Your task to perform on an android device: Open Maps and search for coffee Image 0: 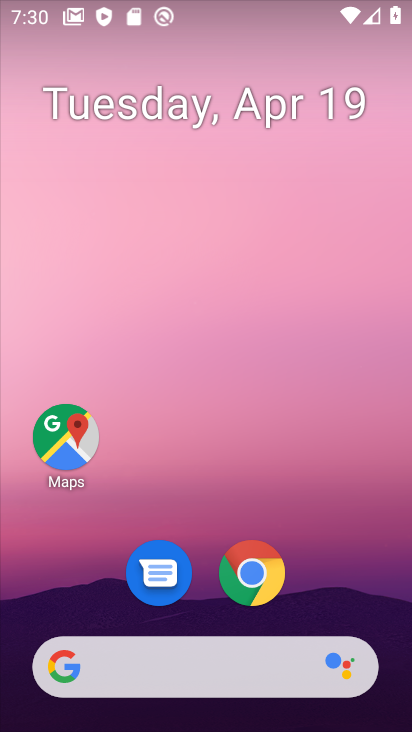
Step 0: click (50, 437)
Your task to perform on an android device: Open Maps and search for coffee Image 1: 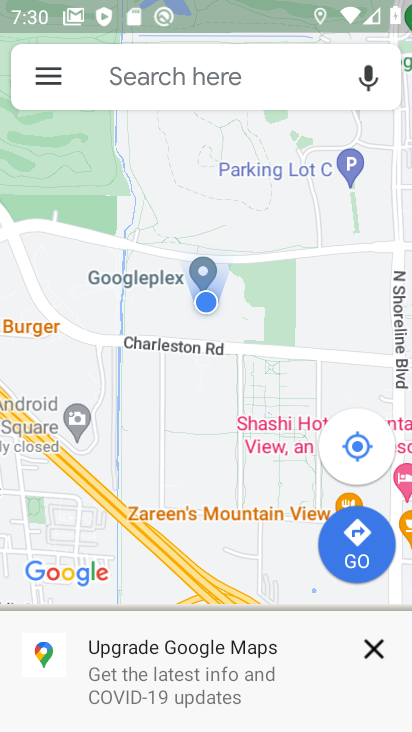
Step 1: click (108, 85)
Your task to perform on an android device: Open Maps and search for coffee Image 2: 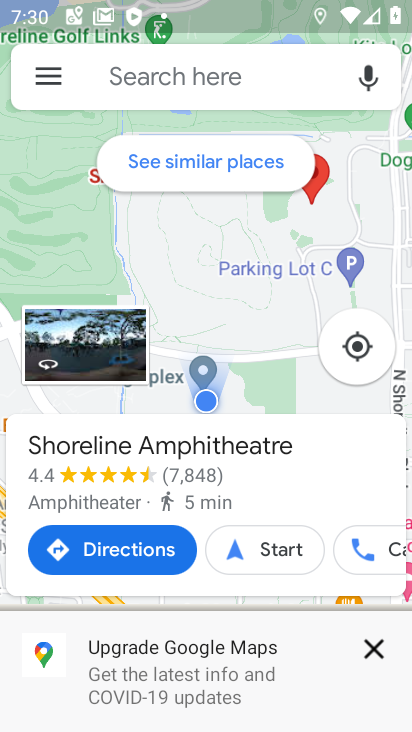
Step 2: click (100, 72)
Your task to perform on an android device: Open Maps and search for coffee Image 3: 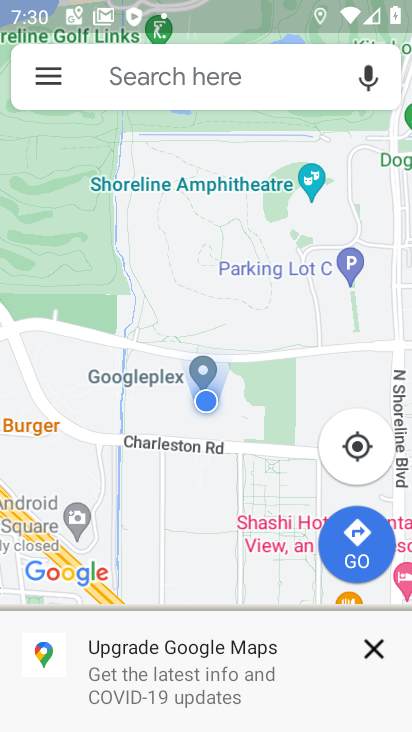
Step 3: click (100, 72)
Your task to perform on an android device: Open Maps and search for coffee Image 4: 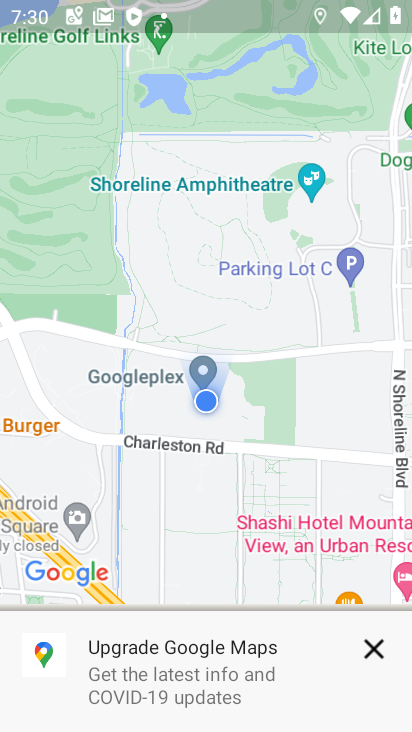
Step 4: type "coffee"
Your task to perform on an android device: Open Maps and search for coffee Image 5: 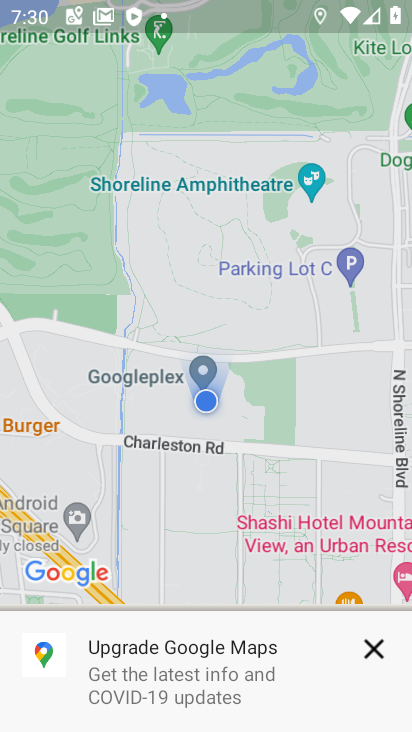
Step 5: press back button
Your task to perform on an android device: Open Maps and search for coffee Image 6: 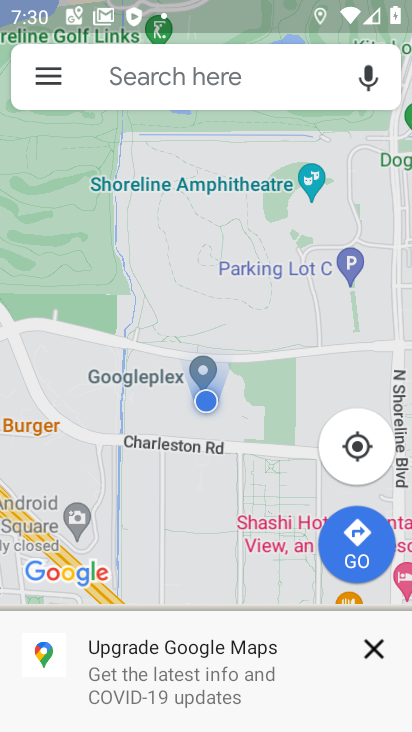
Step 6: click (127, 66)
Your task to perform on an android device: Open Maps and search for coffee Image 7: 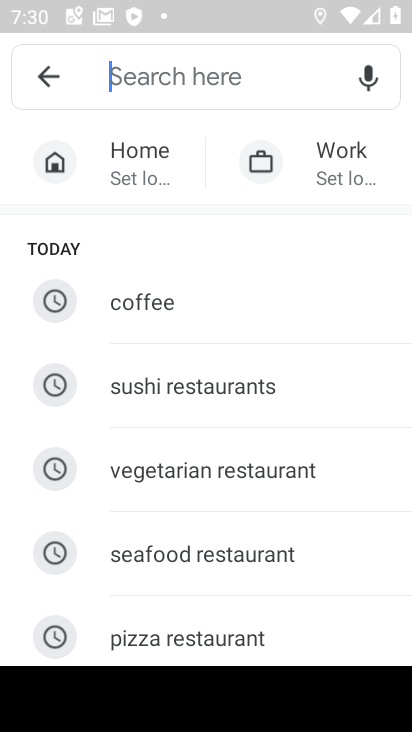
Step 7: type "coffee"
Your task to perform on an android device: Open Maps and search for coffee Image 8: 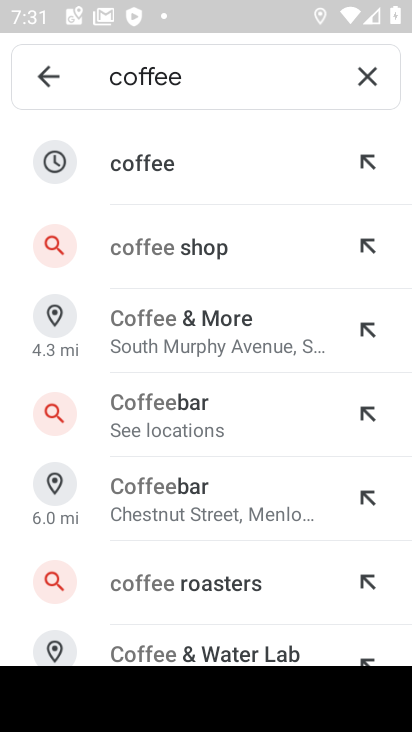
Step 8: click (145, 162)
Your task to perform on an android device: Open Maps and search for coffee Image 9: 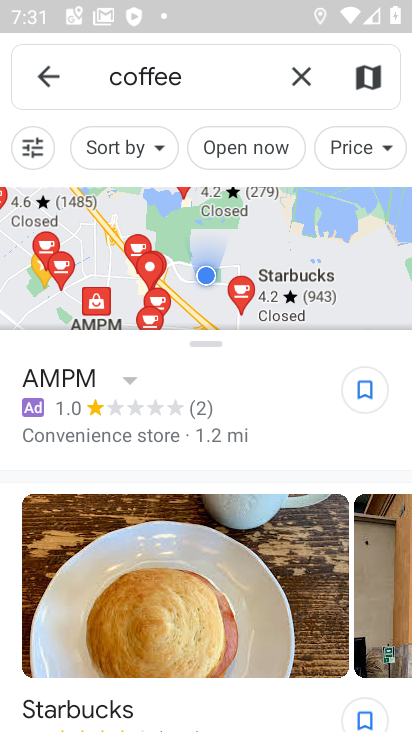
Step 9: task complete